Your task to perform on an android device: Open internet settings Image 0: 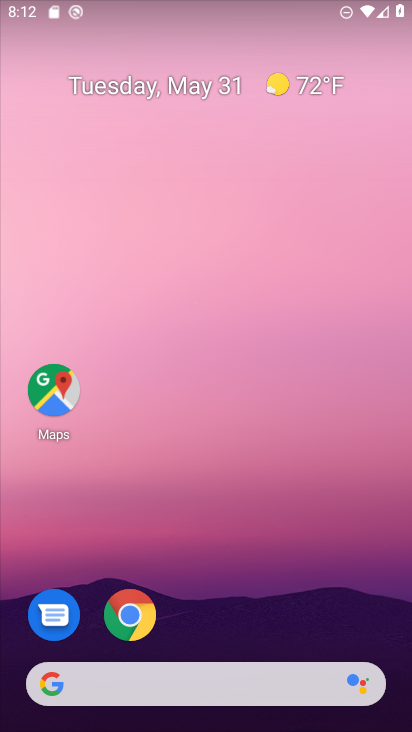
Step 0: drag from (287, 602) to (283, 0)
Your task to perform on an android device: Open internet settings Image 1: 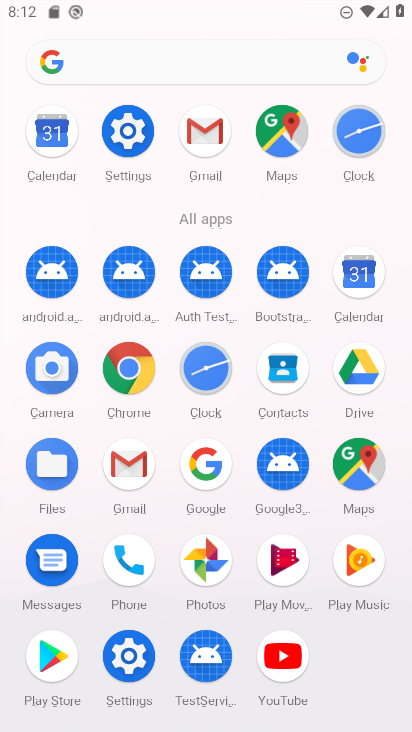
Step 1: click (115, 136)
Your task to perform on an android device: Open internet settings Image 2: 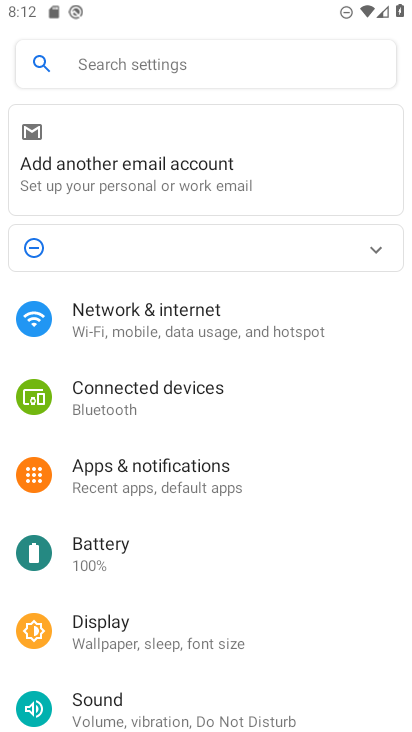
Step 2: click (154, 332)
Your task to perform on an android device: Open internet settings Image 3: 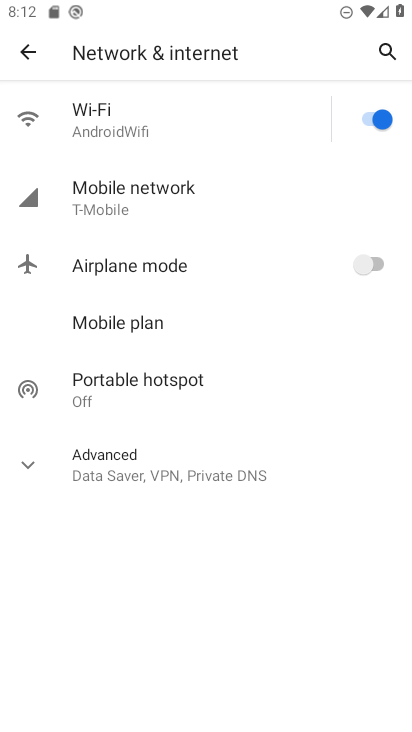
Step 3: click (101, 188)
Your task to perform on an android device: Open internet settings Image 4: 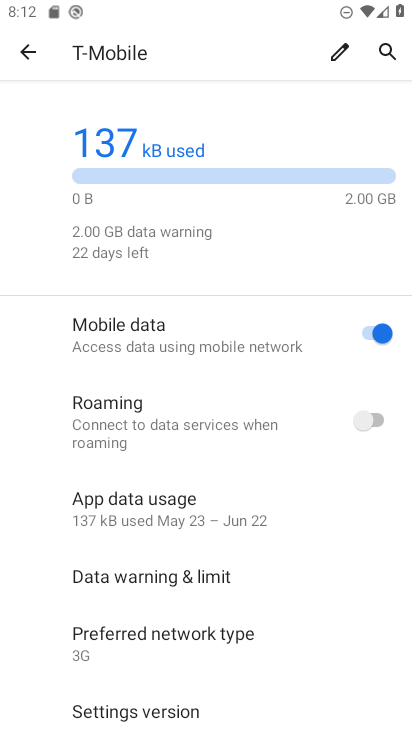
Step 4: task complete